Your task to perform on an android device: turn off picture-in-picture Image 0: 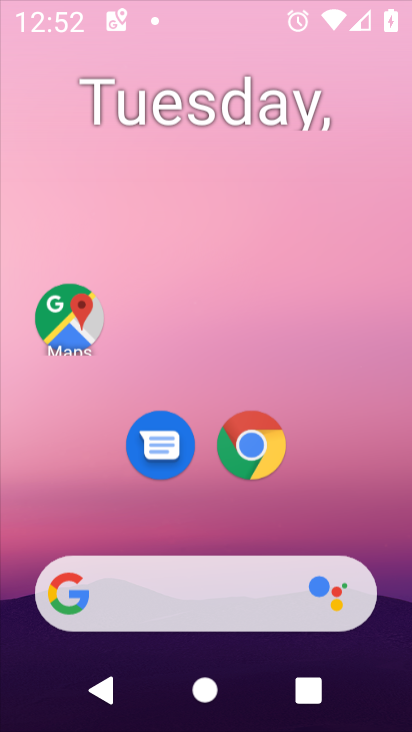
Step 0: drag from (74, 354) to (87, 261)
Your task to perform on an android device: turn off picture-in-picture Image 1: 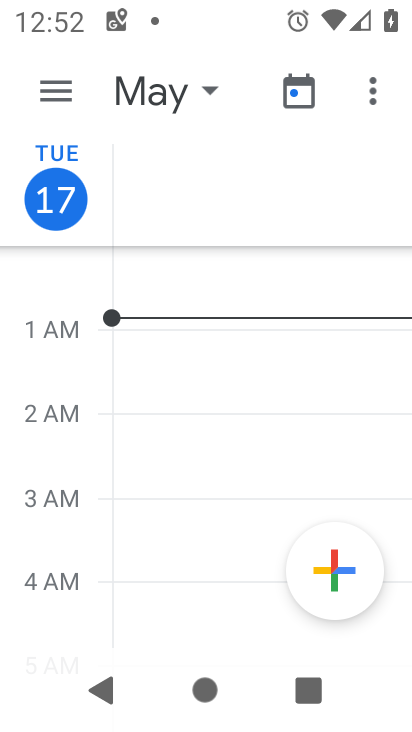
Step 1: drag from (114, 534) to (193, 252)
Your task to perform on an android device: turn off picture-in-picture Image 2: 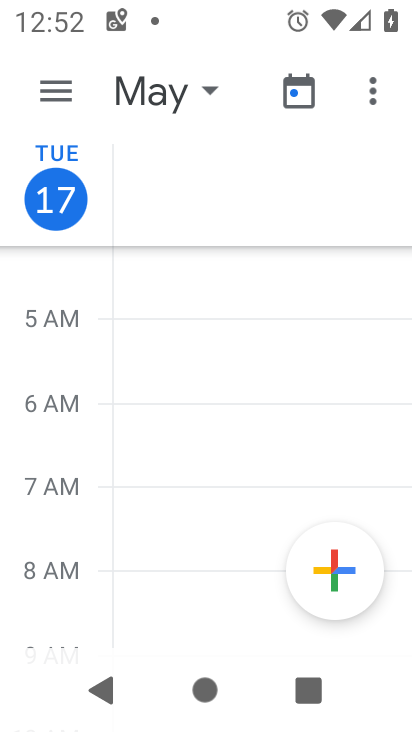
Step 2: press home button
Your task to perform on an android device: turn off picture-in-picture Image 3: 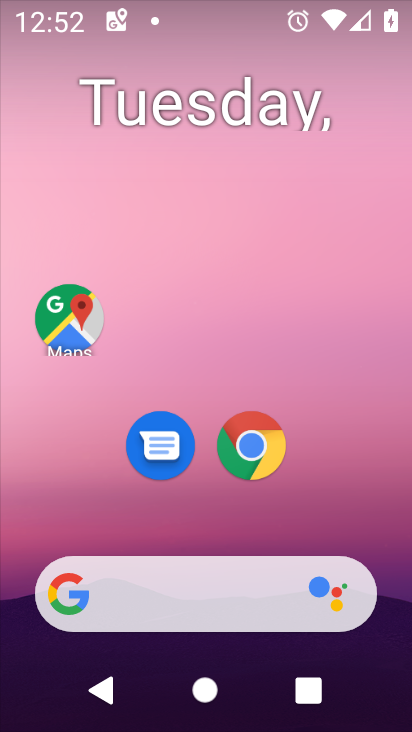
Step 3: drag from (334, 520) to (355, 56)
Your task to perform on an android device: turn off picture-in-picture Image 4: 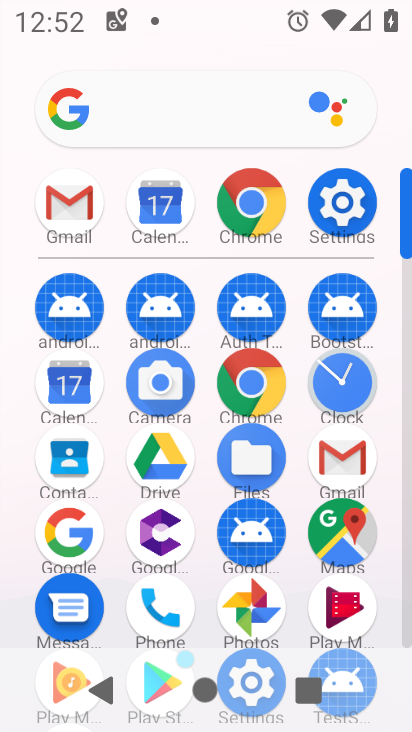
Step 4: click (342, 185)
Your task to perform on an android device: turn off picture-in-picture Image 5: 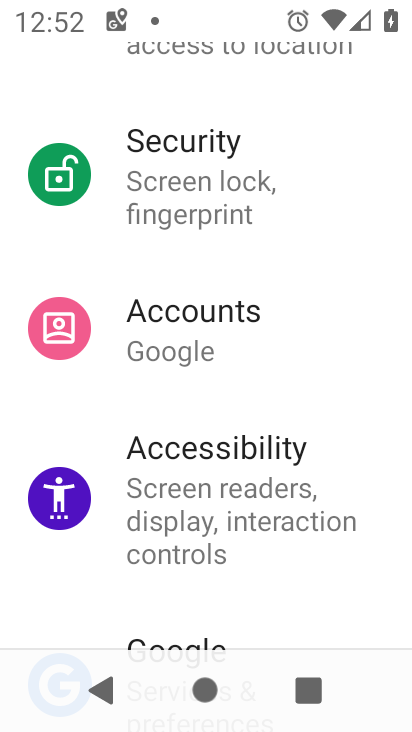
Step 5: drag from (204, 197) to (154, 626)
Your task to perform on an android device: turn off picture-in-picture Image 6: 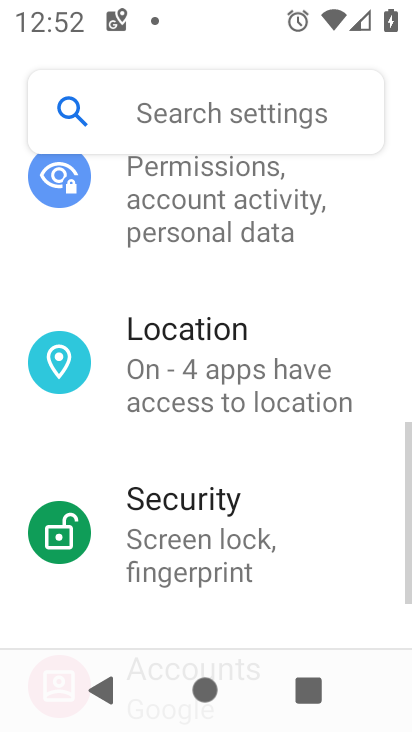
Step 6: drag from (188, 197) to (150, 567)
Your task to perform on an android device: turn off picture-in-picture Image 7: 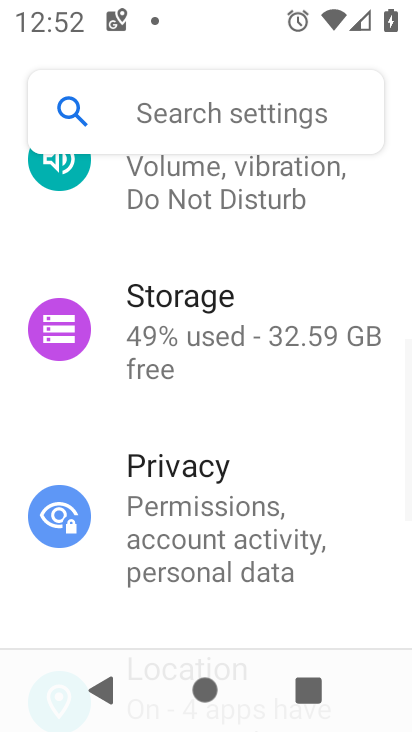
Step 7: drag from (211, 225) to (173, 582)
Your task to perform on an android device: turn off picture-in-picture Image 8: 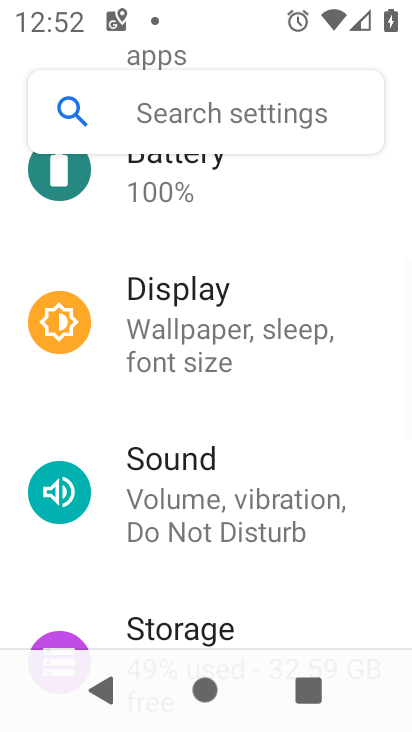
Step 8: drag from (228, 269) to (211, 547)
Your task to perform on an android device: turn off picture-in-picture Image 9: 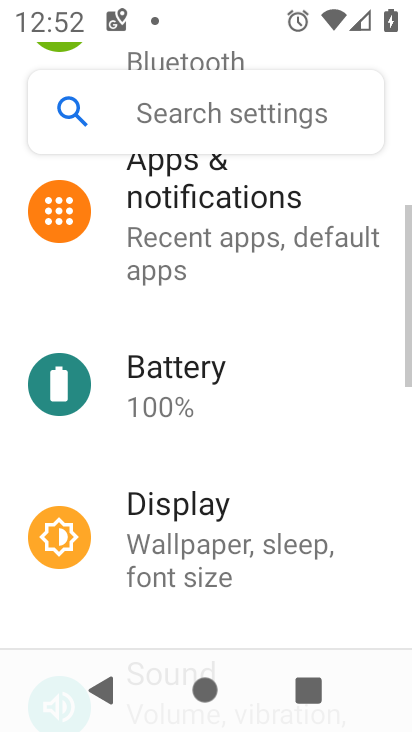
Step 9: drag from (228, 199) to (193, 571)
Your task to perform on an android device: turn off picture-in-picture Image 10: 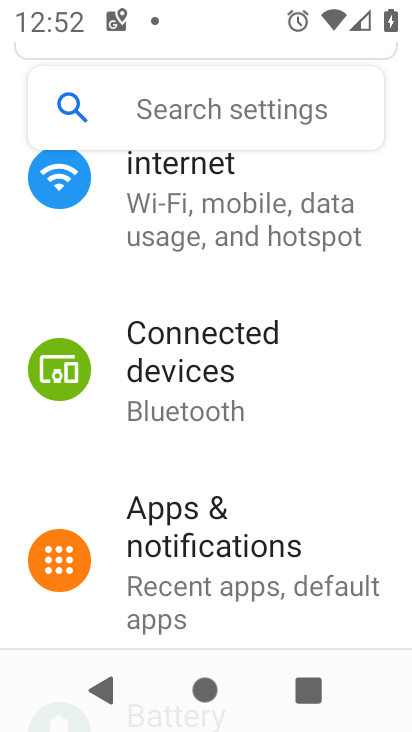
Step 10: drag from (222, 204) to (169, 638)
Your task to perform on an android device: turn off picture-in-picture Image 11: 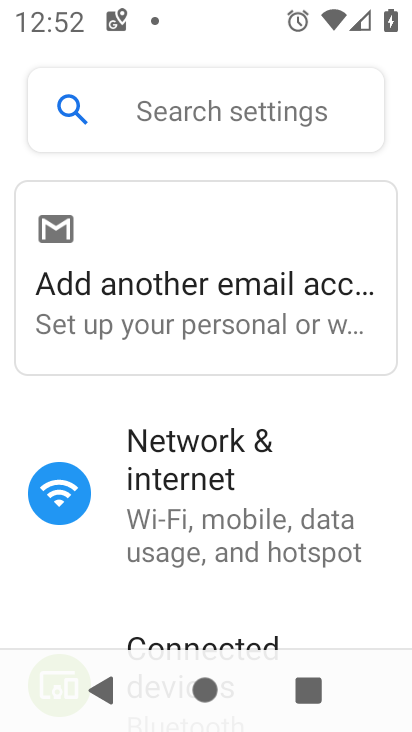
Step 11: click (179, 469)
Your task to perform on an android device: turn off picture-in-picture Image 12: 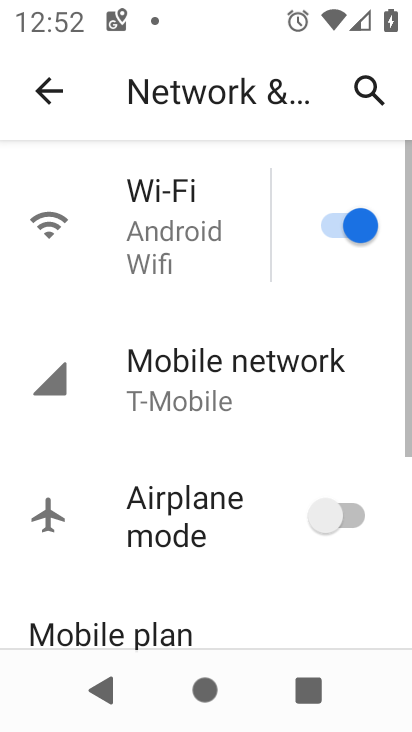
Step 12: drag from (185, 532) to (211, 249)
Your task to perform on an android device: turn off picture-in-picture Image 13: 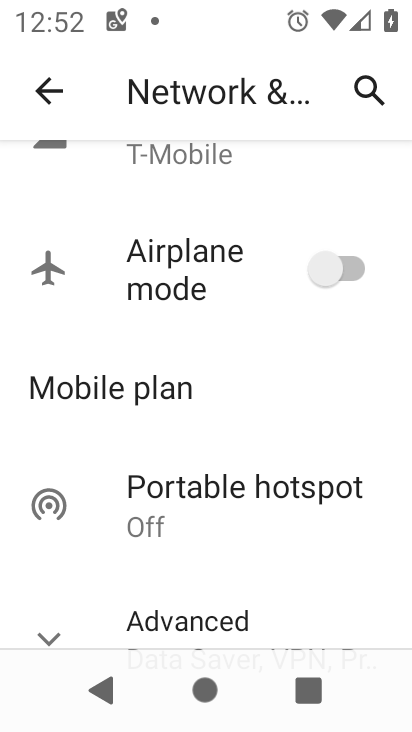
Step 13: drag from (183, 510) to (232, 250)
Your task to perform on an android device: turn off picture-in-picture Image 14: 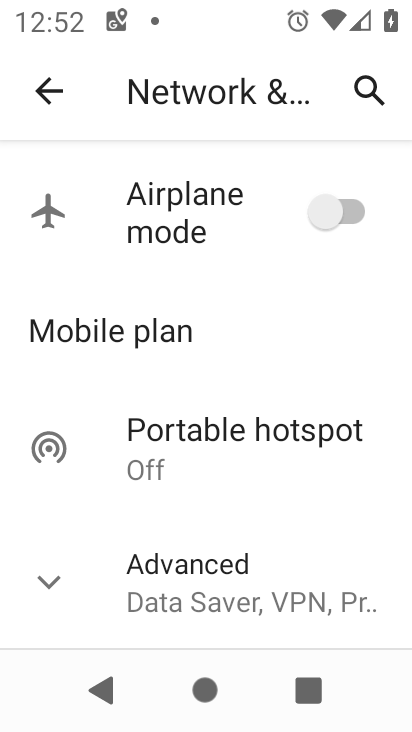
Step 14: click (60, 85)
Your task to perform on an android device: turn off picture-in-picture Image 15: 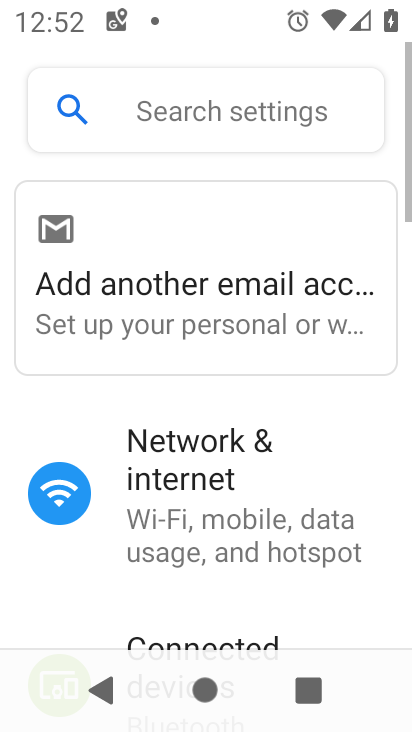
Step 15: drag from (166, 536) to (229, 234)
Your task to perform on an android device: turn off picture-in-picture Image 16: 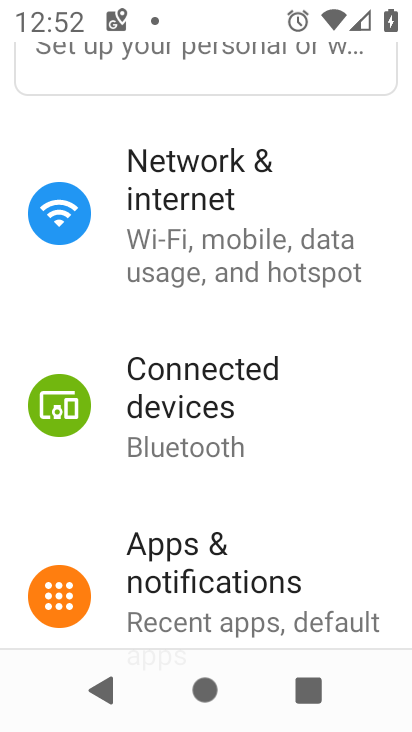
Step 16: click (160, 579)
Your task to perform on an android device: turn off picture-in-picture Image 17: 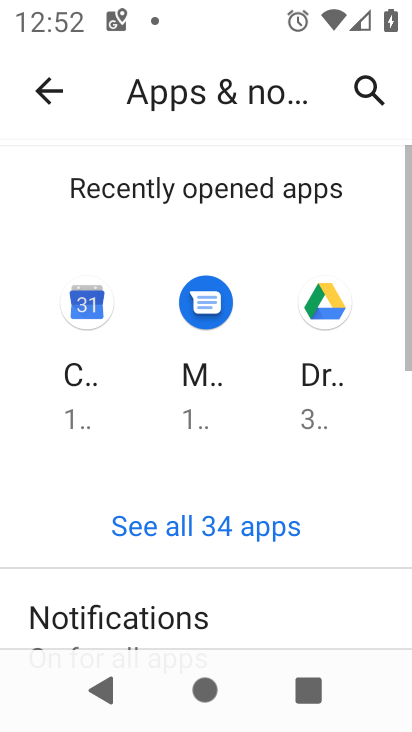
Step 17: drag from (203, 563) to (254, 241)
Your task to perform on an android device: turn off picture-in-picture Image 18: 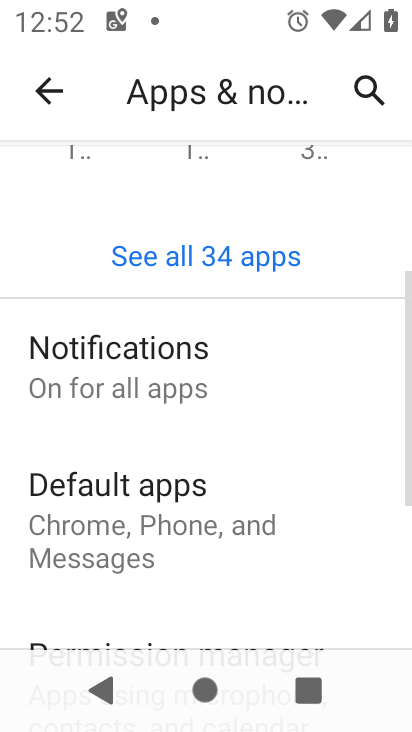
Step 18: drag from (157, 533) to (213, 369)
Your task to perform on an android device: turn off picture-in-picture Image 19: 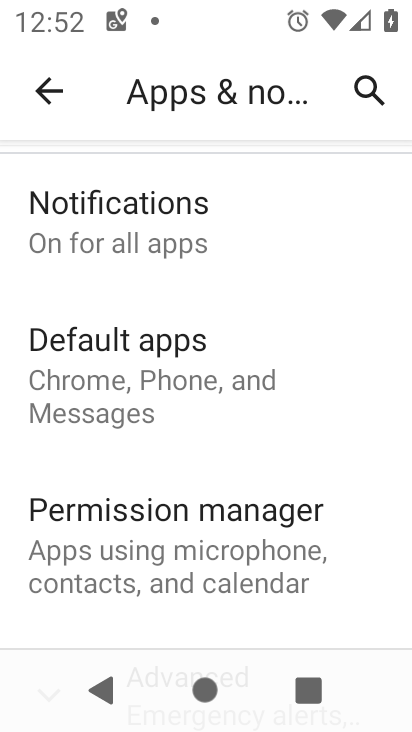
Step 19: click (199, 202)
Your task to perform on an android device: turn off picture-in-picture Image 20: 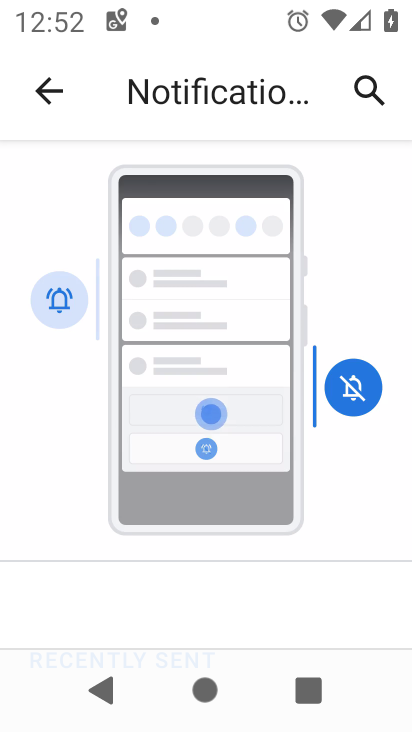
Step 20: drag from (195, 605) to (286, 169)
Your task to perform on an android device: turn off picture-in-picture Image 21: 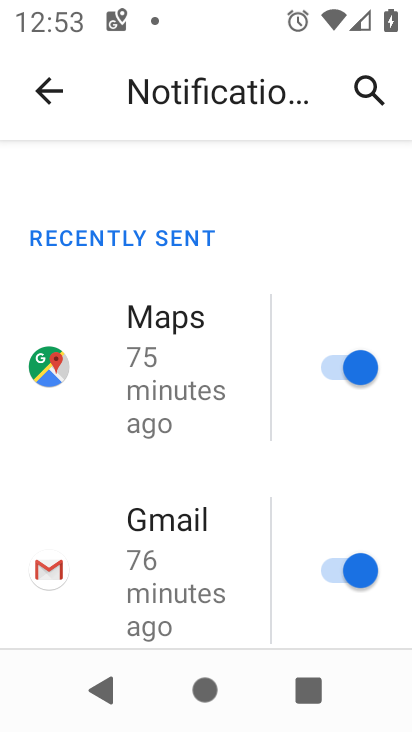
Step 21: drag from (204, 581) to (292, 168)
Your task to perform on an android device: turn off picture-in-picture Image 22: 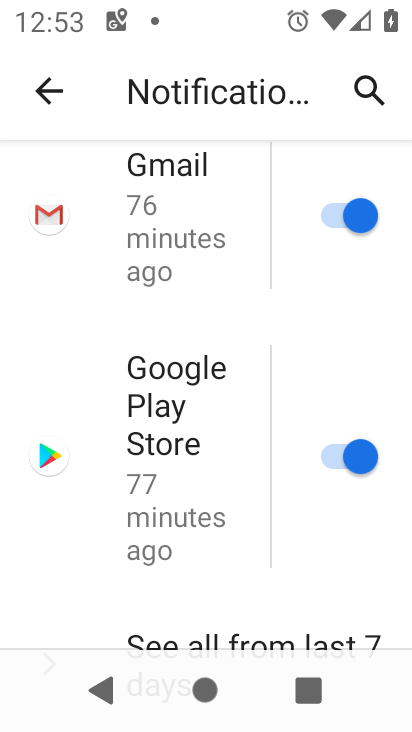
Step 22: drag from (190, 576) to (326, 125)
Your task to perform on an android device: turn off picture-in-picture Image 23: 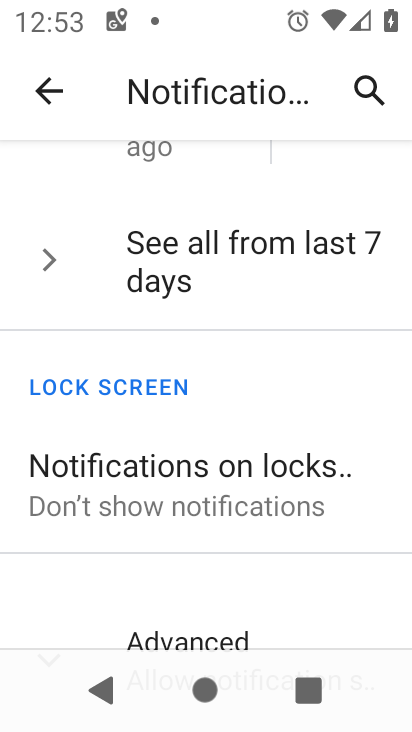
Step 23: click (180, 487)
Your task to perform on an android device: turn off picture-in-picture Image 24: 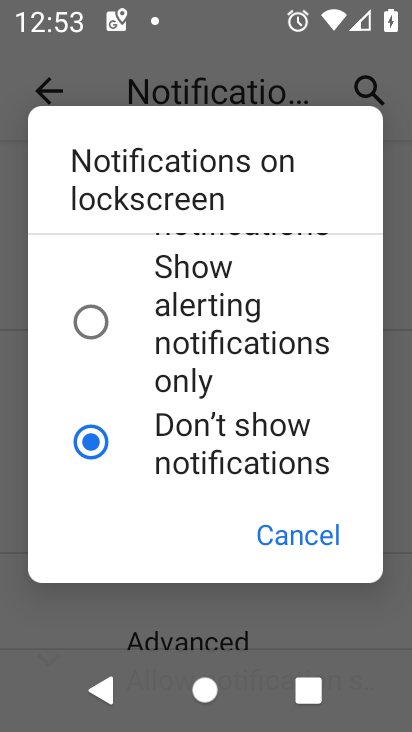
Step 24: click (299, 537)
Your task to perform on an android device: turn off picture-in-picture Image 25: 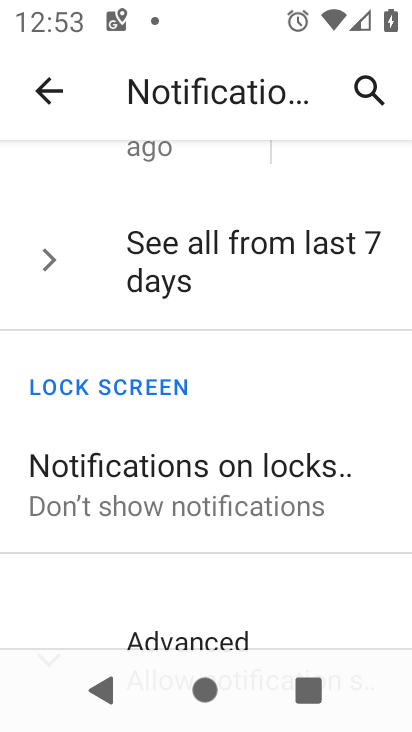
Step 25: drag from (269, 598) to (327, 122)
Your task to perform on an android device: turn off picture-in-picture Image 26: 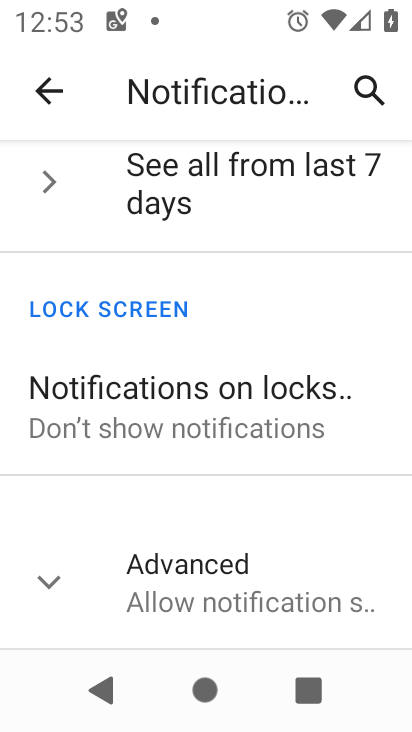
Step 26: click (41, 96)
Your task to perform on an android device: turn off picture-in-picture Image 27: 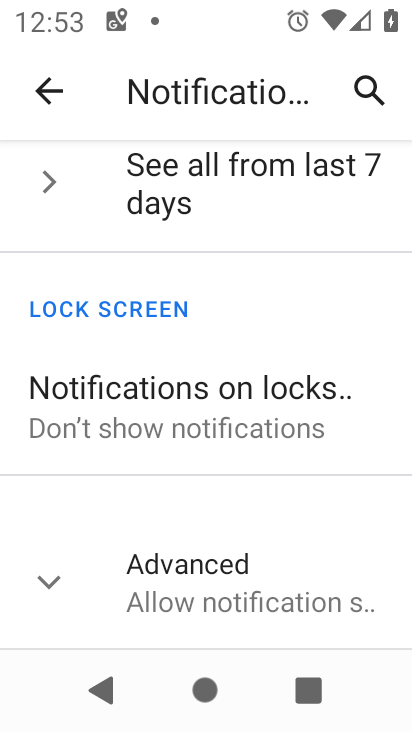
Step 27: drag from (197, 618) to (270, 191)
Your task to perform on an android device: turn off picture-in-picture Image 28: 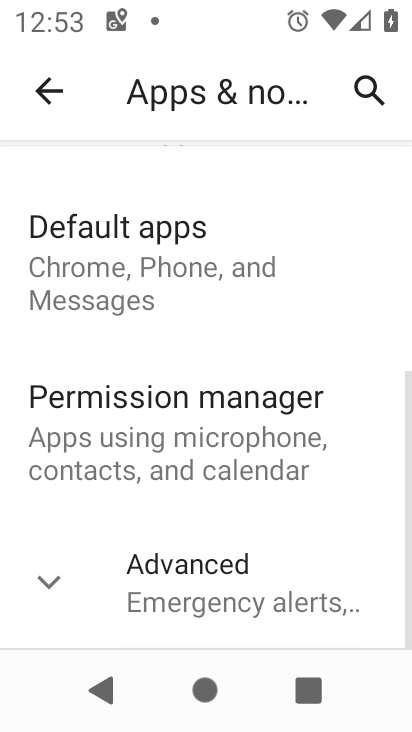
Step 28: click (211, 590)
Your task to perform on an android device: turn off picture-in-picture Image 29: 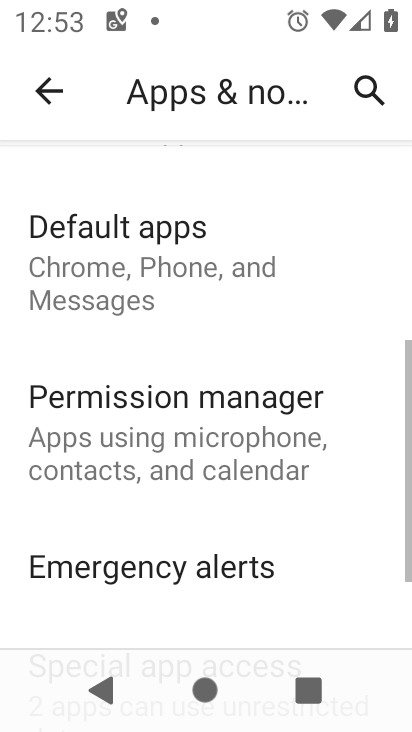
Step 29: drag from (225, 618) to (367, 173)
Your task to perform on an android device: turn off picture-in-picture Image 30: 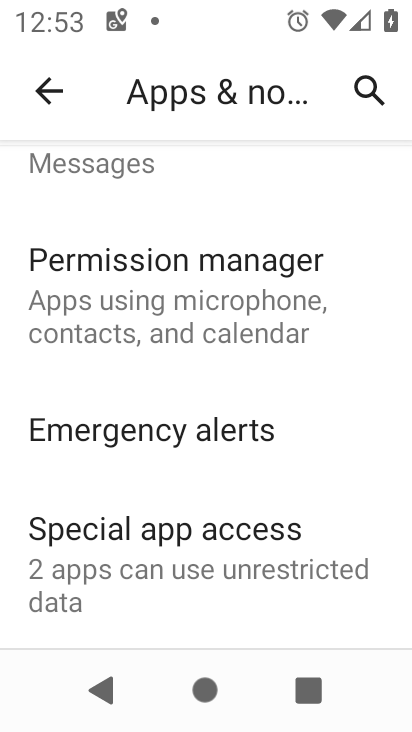
Step 30: click (195, 581)
Your task to perform on an android device: turn off picture-in-picture Image 31: 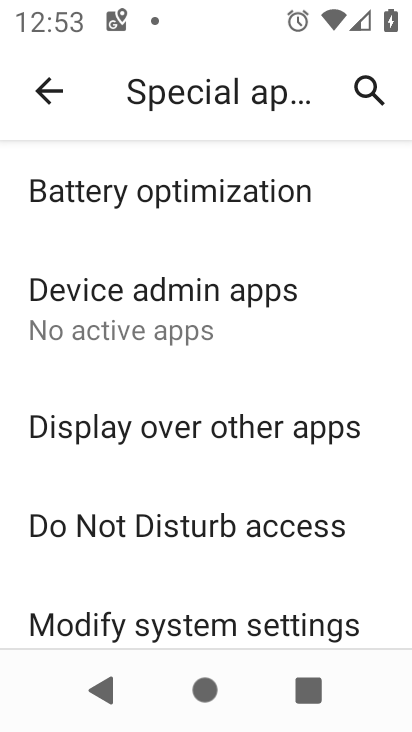
Step 31: drag from (204, 557) to (312, 185)
Your task to perform on an android device: turn off picture-in-picture Image 32: 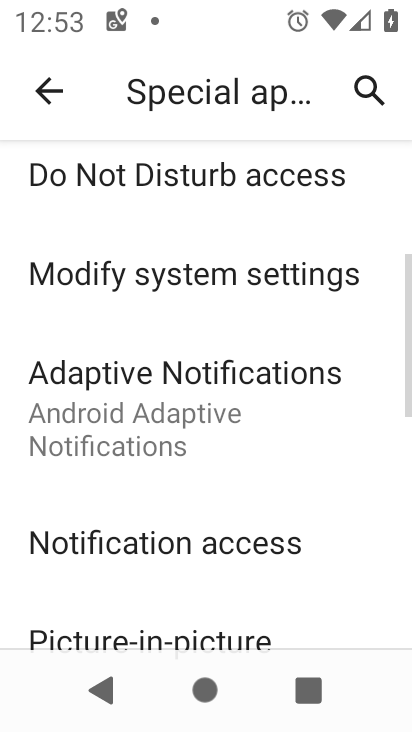
Step 32: drag from (188, 588) to (243, 348)
Your task to perform on an android device: turn off picture-in-picture Image 33: 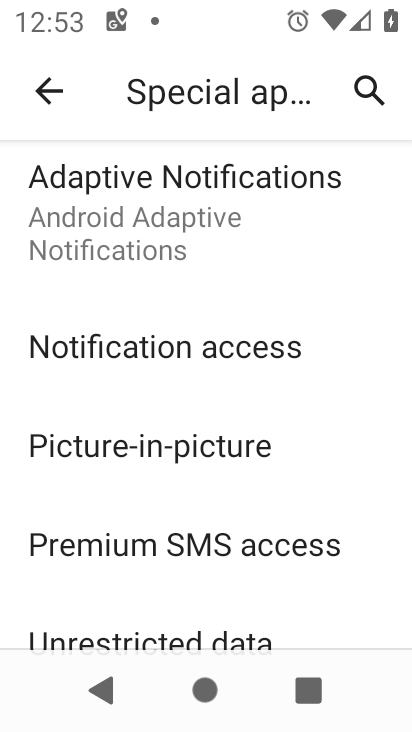
Step 33: click (160, 440)
Your task to perform on an android device: turn off picture-in-picture Image 34: 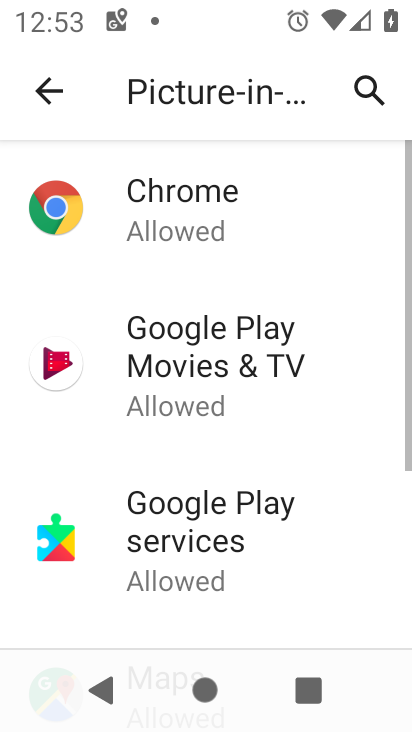
Step 34: drag from (230, 530) to (249, 200)
Your task to perform on an android device: turn off picture-in-picture Image 35: 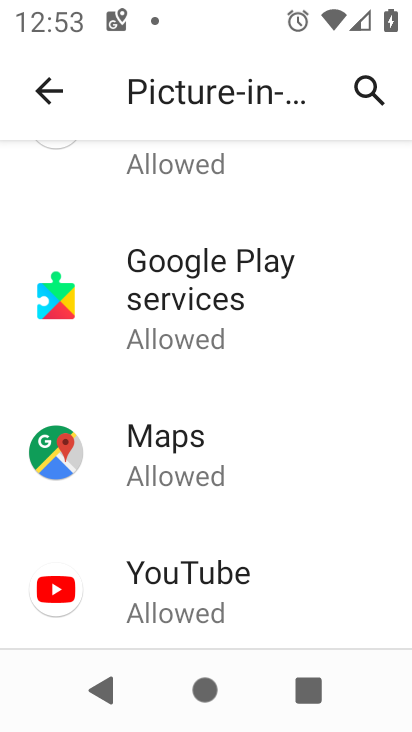
Step 35: drag from (228, 567) to (220, 378)
Your task to perform on an android device: turn off picture-in-picture Image 36: 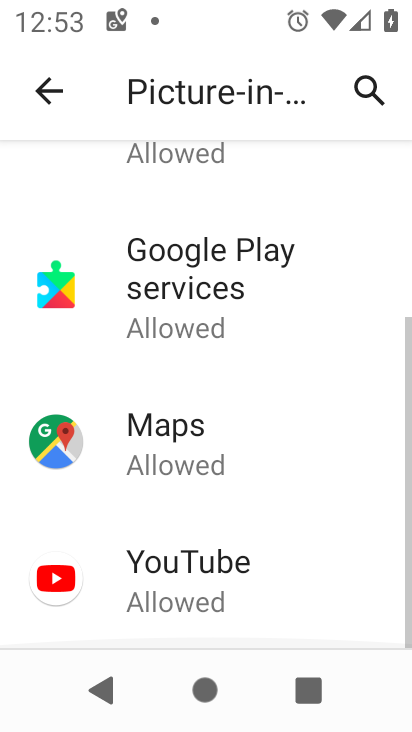
Step 36: click (165, 558)
Your task to perform on an android device: turn off picture-in-picture Image 37: 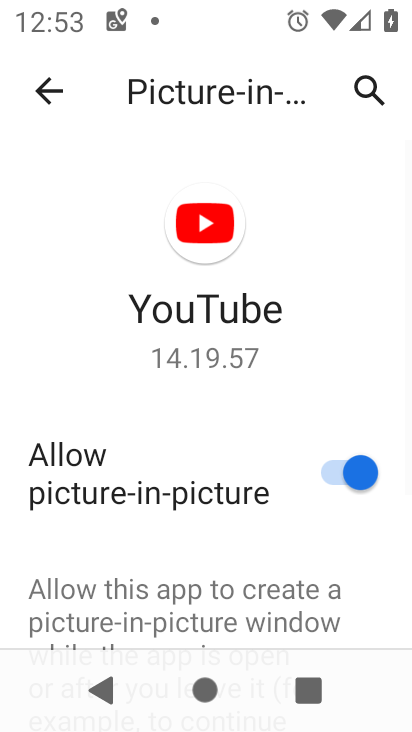
Step 37: click (333, 486)
Your task to perform on an android device: turn off picture-in-picture Image 38: 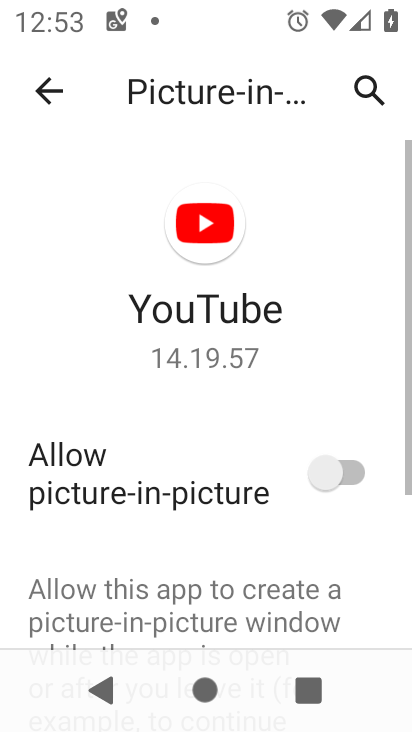
Step 38: task complete